Your task to perform on an android device: Search for "razer blade" on newegg.com, select the first entry, add it to the cart, then select checkout. Image 0: 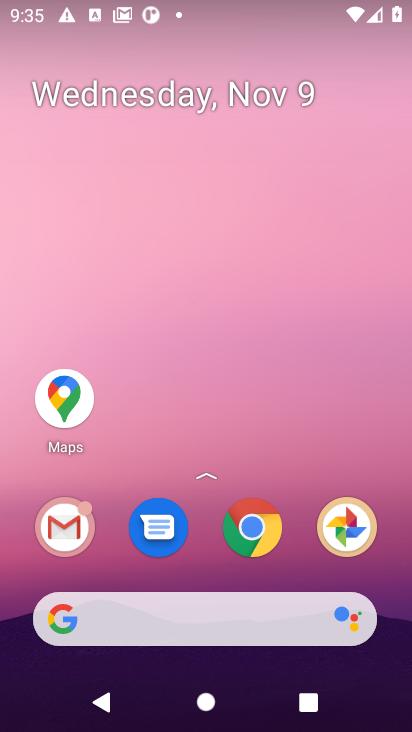
Step 0: click (259, 532)
Your task to perform on an android device: Search for "razer blade" on newegg.com, select the first entry, add it to the cart, then select checkout. Image 1: 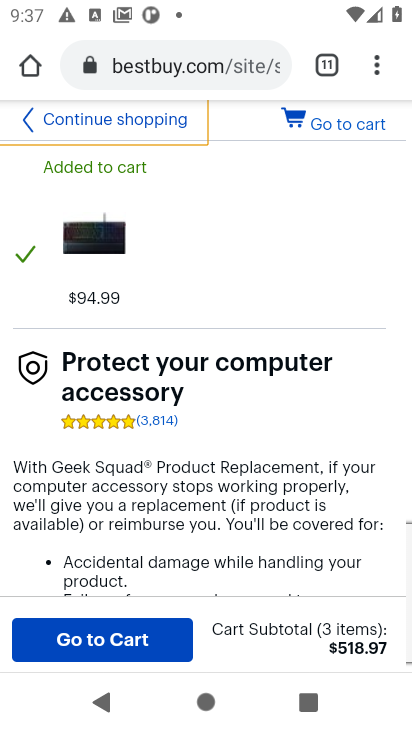
Step 1: click (193, 69)
Your task to perform on an android device: Search for "razer blade" on newegg.com, select the first entry, add it to the cart, then select checkout. Image 2: 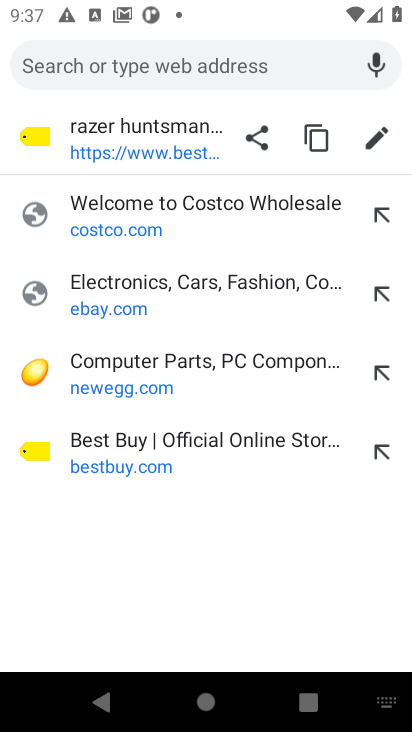
Step 2: type "newegg.com"
Your task to perform on an android device: Search for "razer blade" on newegg.com, select the first entry, add it to the cart, then select checkout. Image 3: 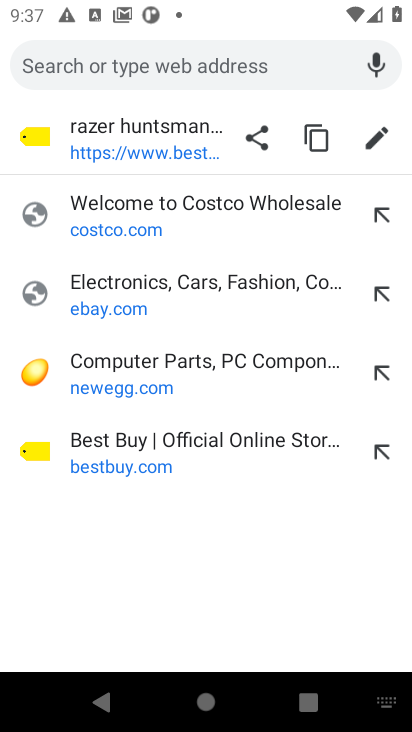
Step 3: click (114, 368)
Your task to perform on an android device: Search for "razer blade" on newegg.com, select the first entry, add it to the cart, then select checkout. Image 4: 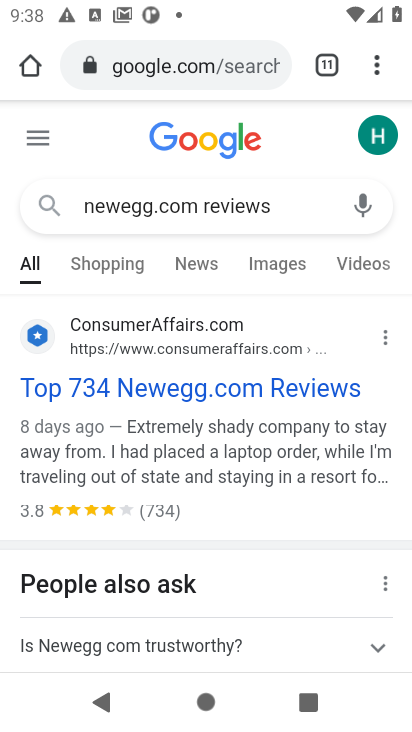
Step 4: drag from (126, 466) to (120, 146)
Your task to perform on an android device: Search for "razer blade" on newegg.com, select the first entry, add it to the cart, then select checkout. Image 5: 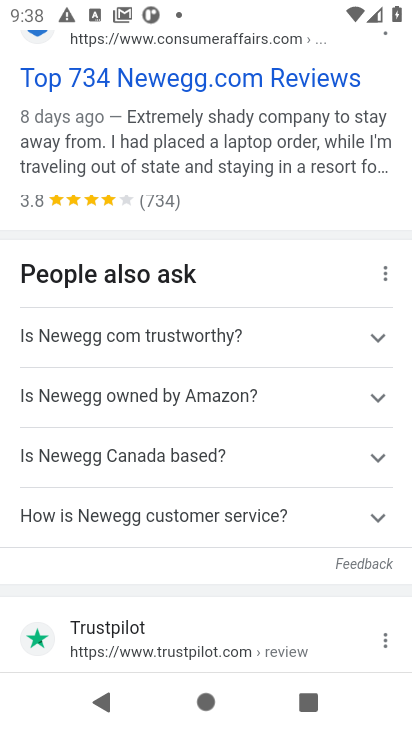
Step 5: drag from (120, 502) to (121, 219)
Your task to perform on an android device: Search for "razer blade" on newegg.com, select the first entry, add it to the cart, then select checkout. Image 6: 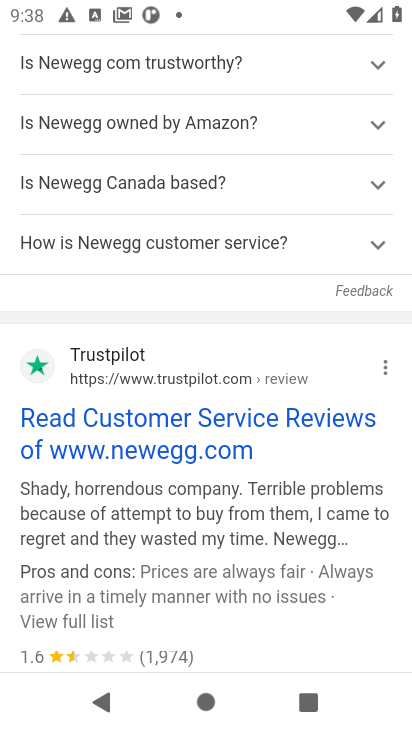
Step 6: drag from (94, 538) to (123, 199)
Your task to perform on an android device: Search for "razer blade" on newegg.com, select the first entry, add it to the cart, then select checkout. Image 7: 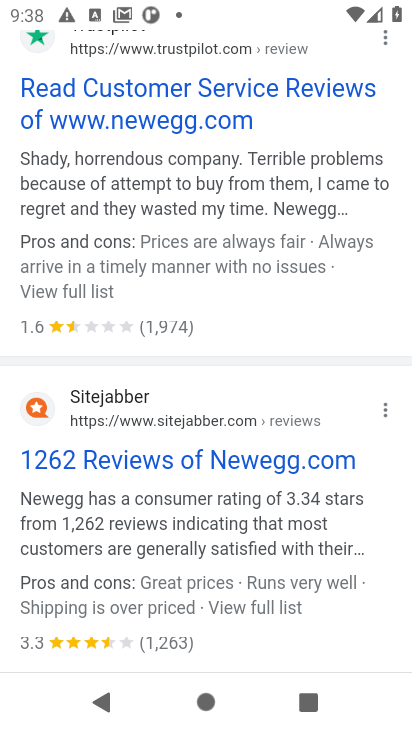
Step 7: drag from (100, 537) to (105, 271)
Your task to perform on an android device: Search for "razer blade" on newegg.com, select the first entry, add it to the cart, then select checkout. Image 8: 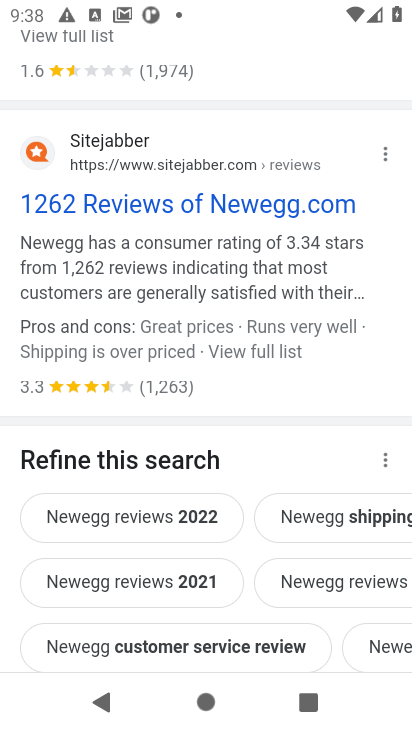
Step 8: drag from (105, 270) to (157, 696)
Your task to perform on an android device: Search for "razer blade" on newegg.com, select the first entry, add it to the cart, then select checkout. Image 9: 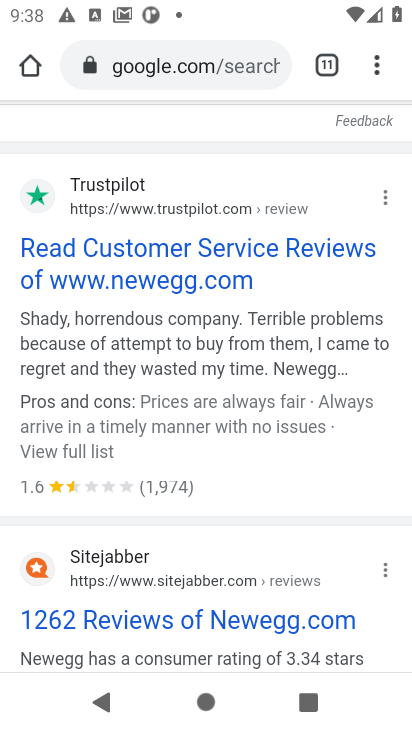
Step 9: drag from (155, 225) to (163, 672)
Your task to perform on an android device: Search for "razer blade" on newegg.com, select the first entry, add it to the cart, then select checkout. Image 10: 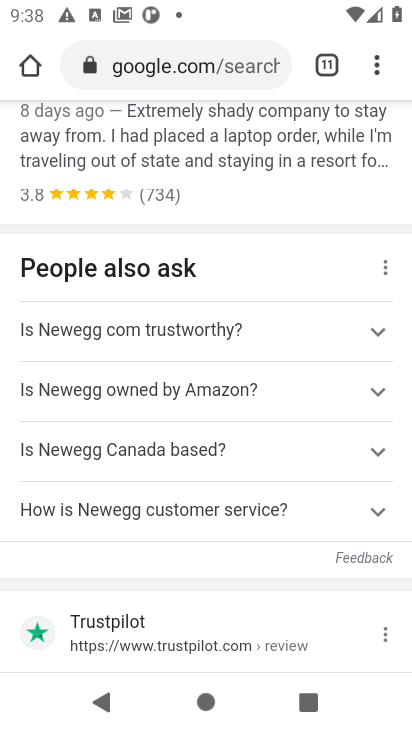
Step 10: drag from (155, 296) to (168, 689)
Your task to perform on an android device: Search for "razer blade" on newegg.com, select the first entry, add it to the cart, then select checkout. Image 11: 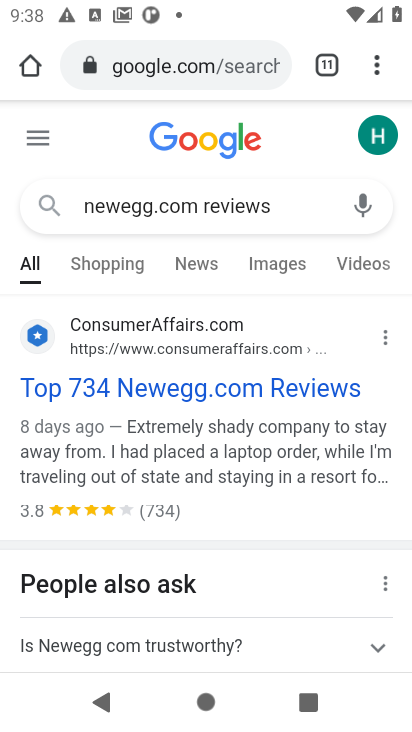
Step 11: click (229, 65)
Your task to perform on an android device: Search for "razer blade" on newegg.com, select the first entry, add it to the cart, then select checkout. Image 12: 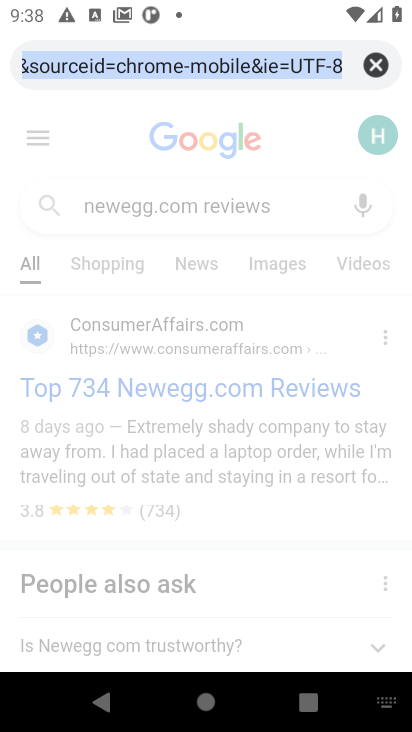
Step 12: click (381, 67)
Your task to perform on an android device: Search for "razer blade" on newegg.com, select the first entry, add it to the cart, then select checkout. Image 13: 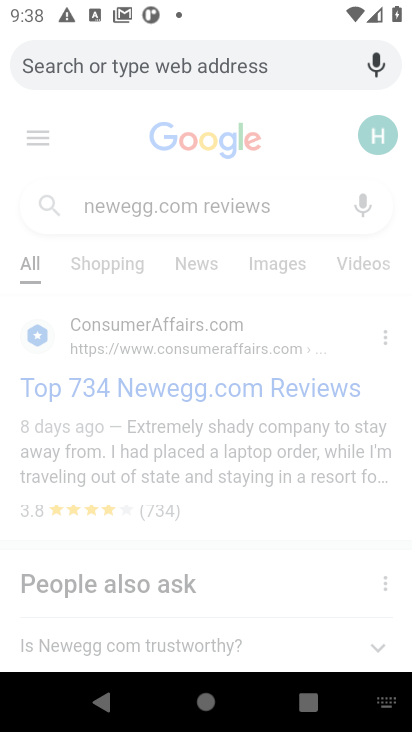
Step 13: click (228, 63)
Your task to perform on an android device: Search for "razer blade" on newegg.com, select the first entry, add it to the cart, then select checkout. Image 14: 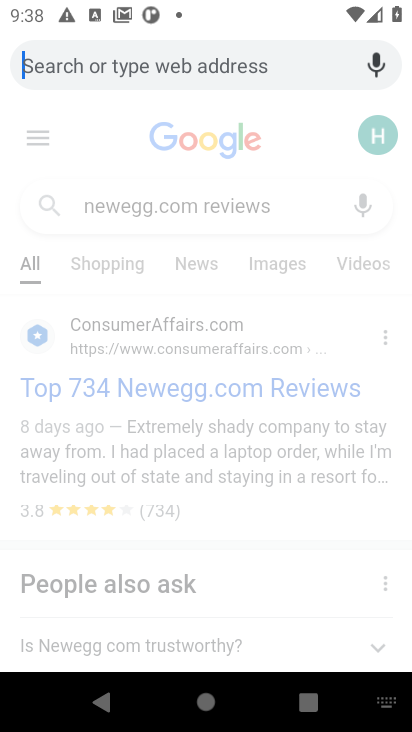
Step 14: type "newegg.com"
Your task to perform on an android device: Search for "razer blade" on newegg.com, select the first entry, add it to the cart, then select checkout. Image 15: 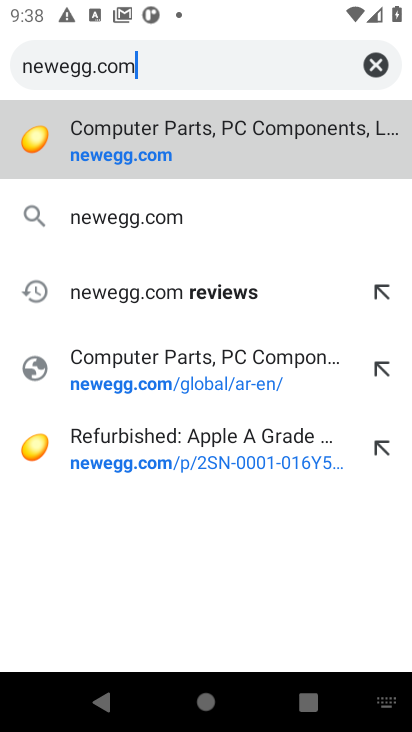
Step 15: click (135, 164)
Your task to perform on an android device: Search for "razer blade" on newegg.com, select the first entry, add it to the cart, then select checkout. Image 16: 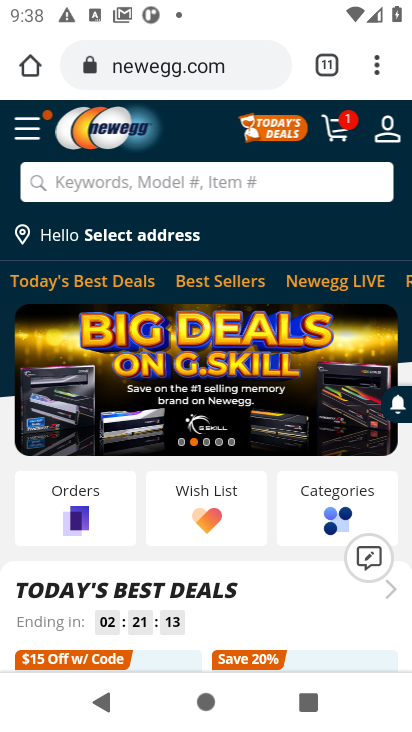
Step 16: click (187, 181)
Your task to perform on an android device: Search for "razer blade" on newegg.com, select the first entry, add it to the cart, then select checkout. Image 17: 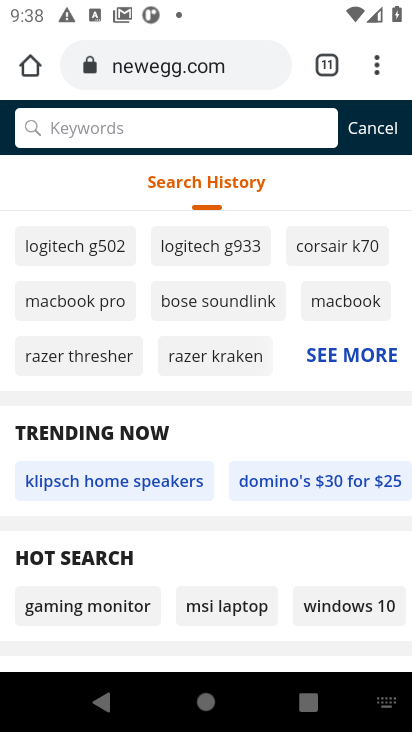
Step 17: type "razer blade"
Your task to perform on an android device: Search for "razer blade" on newegg.com, select the first entry, add it to the cart, then select checkout. Image 18: 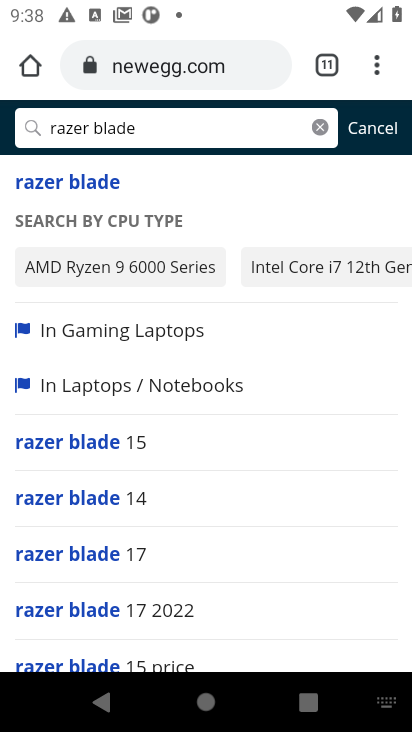
Step 18: click (56, 191)
Your task to perform on an android device: Search for "razer blade" on newegg.com, select the first entry, add it to the cart, then select checkout. Image 19: 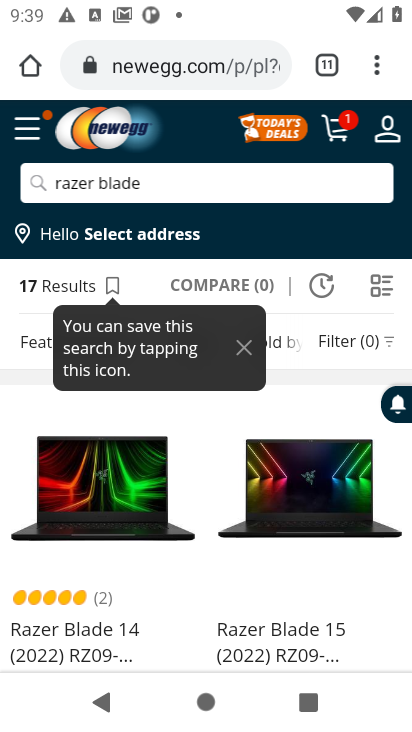
Step 19: drag from (155, 492) to (160, 301)
Your task to perform on an android device: Search for "razer blade" on newegg.com, select the first entry, add it to the cart, then select checkout. Image 20: 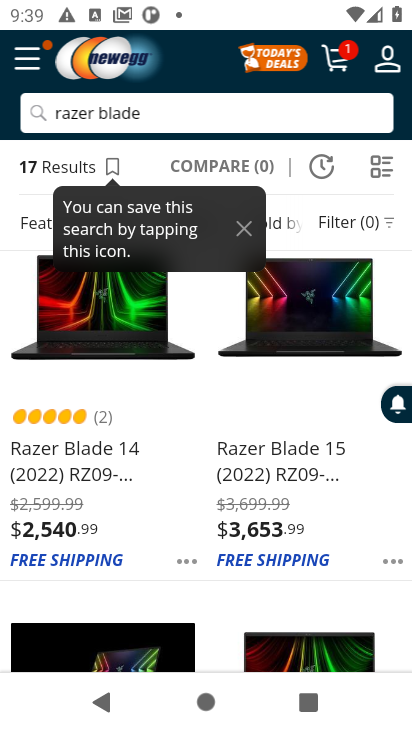
Step 20: click (116, 330)
Your task to perform on an android device: Search for "razer blade" on newegg.com, select the first entry, add it to the cart, then select checkout. Image 21: 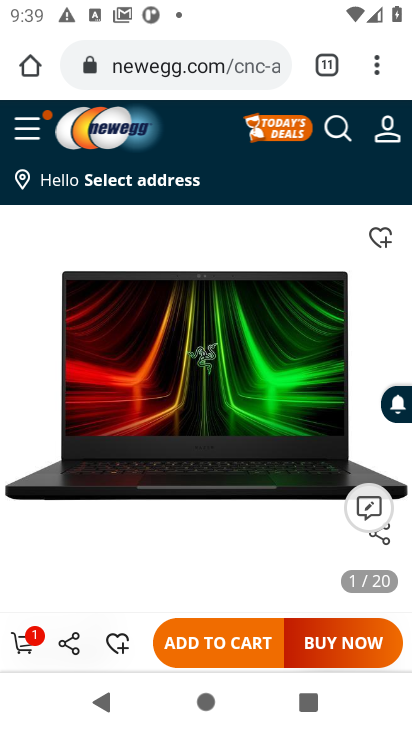
Step 21: click (203, 644)
Your task to perform on an android device: Search for "razer blade" on newegg.com, select the first entry, add it to the cart, then select checkout. Image 22: 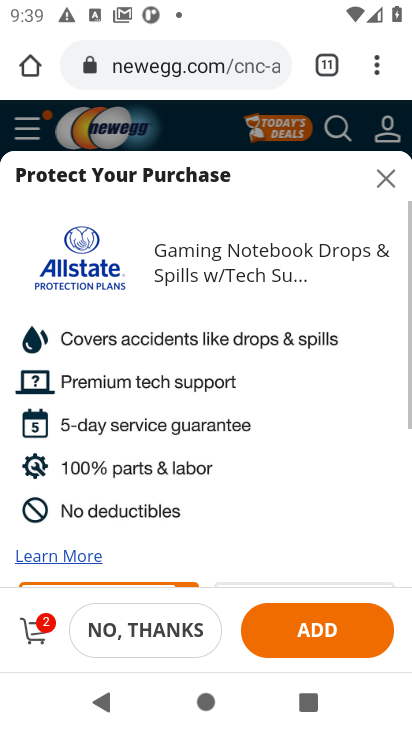
Step 22: click (35, 627)
Your task to perform on an android device: Search for "razer blade" on newegg.com, select the first entry, add it to the cart, then select checkout. Image 23: 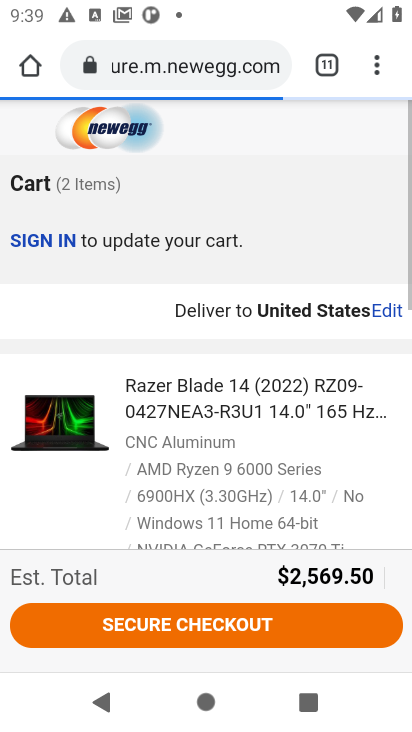
Step 23: click (128, 632)
Your task to perform on an android device: Search for "razer blade" on newegg.com, select the first entry, add it to the cart, then select checkout. Image 24: 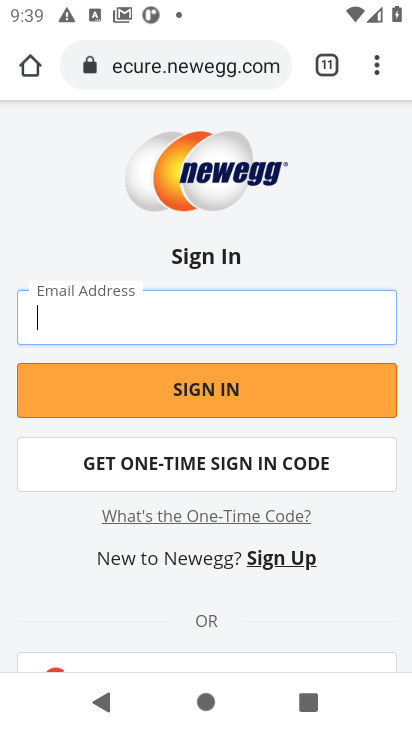
Step 24: task complete